Your task to perform on an android device: What's the weather today? Image 0: 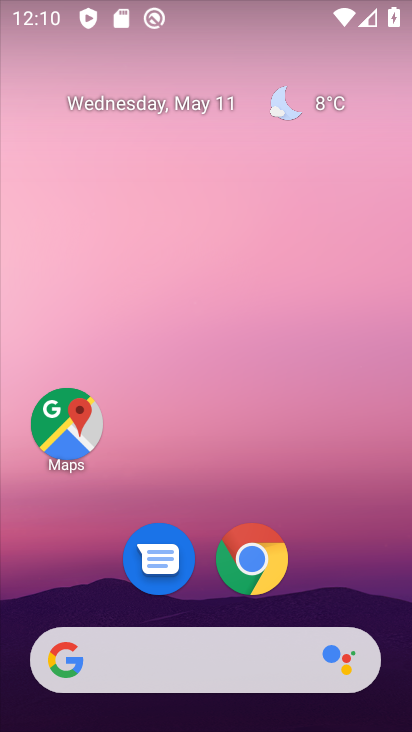
Step 0: drag from (302, 554) to (244, 65)
Your task to perform on an android device: What's the weather today? Image 1: 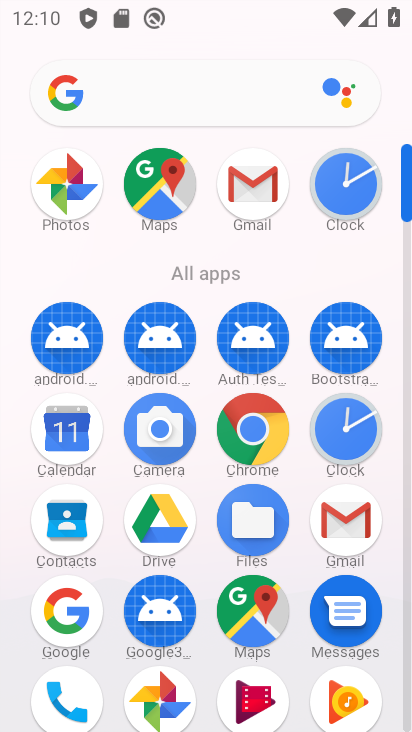
Step 1: drag from (16, 579) to (13, 201)
Your task to perform on an android device: What's the weather today? Image 2: 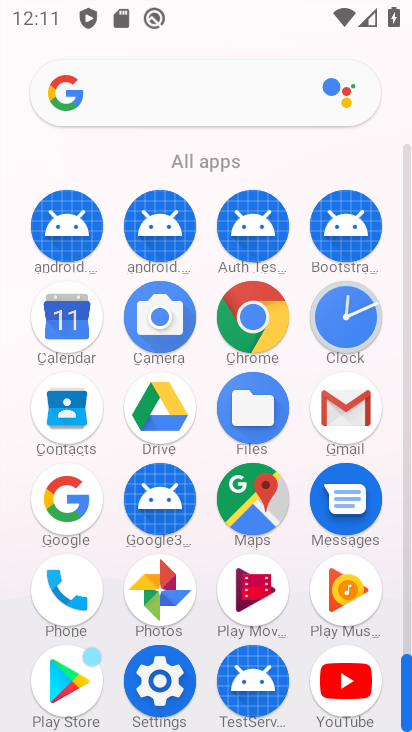
Step 2: drag from (15, 476) to (5, 248)
Your task to perform on an android device: What's the weather today? Image 3: 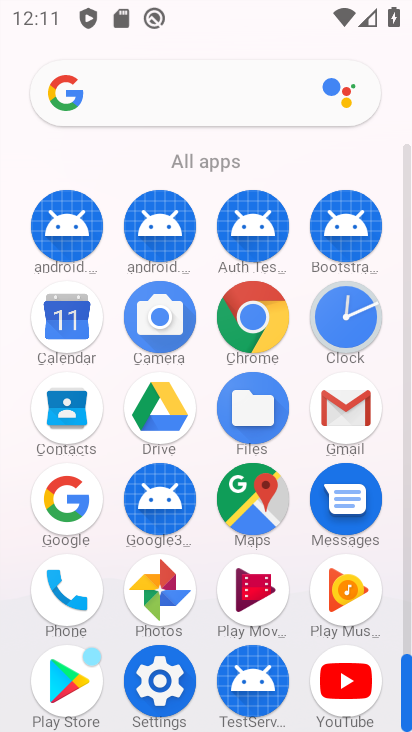
Step 3: click (244, 309)
Your task to perform on an android device: What's the weather today? Image 4: 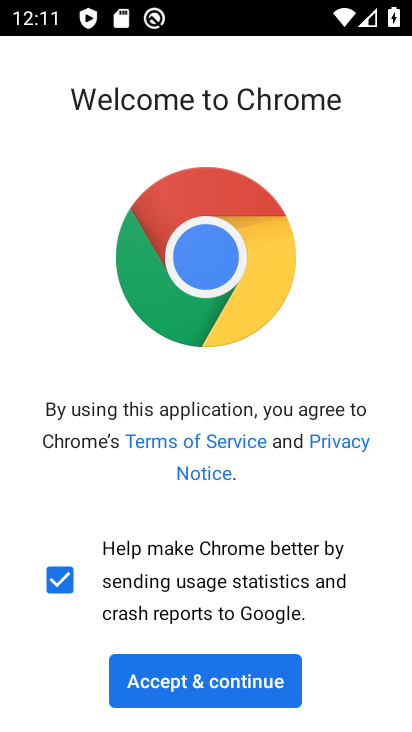
Step 4: click (184, 678)
Your task to perform on an android device: What's the weather today? Image 5: 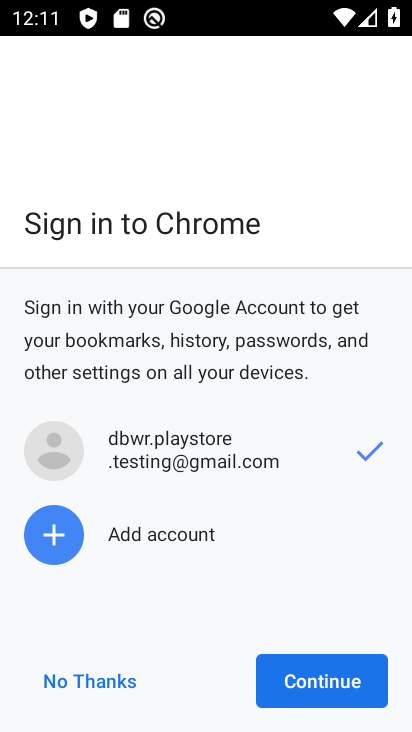
Step 5: click (294, 671)
Your task to perform on an android device: What's the weather today? Image 6: 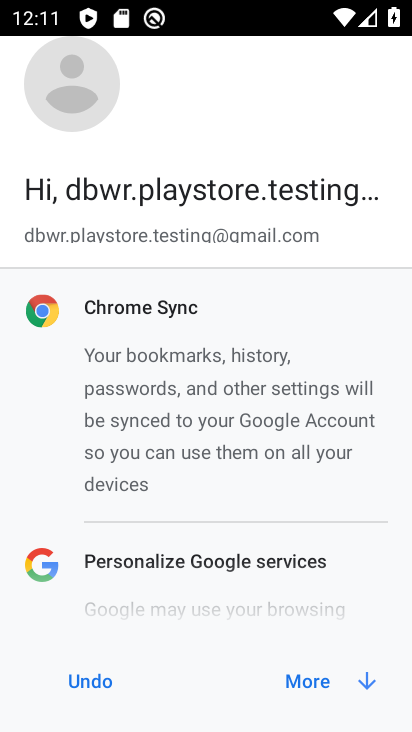
Step 6: click (304, 668)
Your task to perform on an android device: What's the weather today? Image 7: 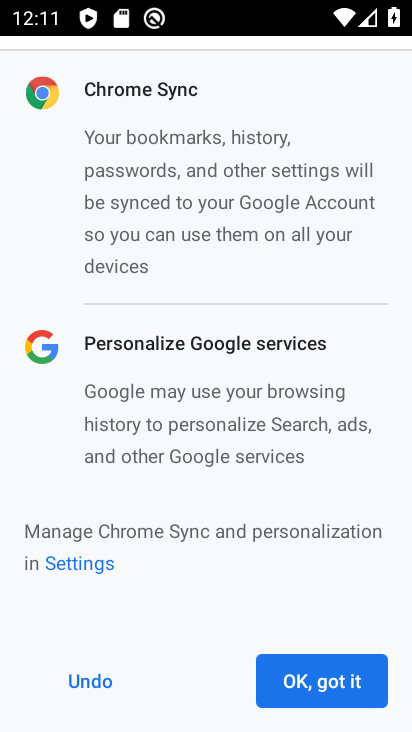
Step 7: click (330, 689)
Your task to perform on an android device: What's the weather today? Image 8: 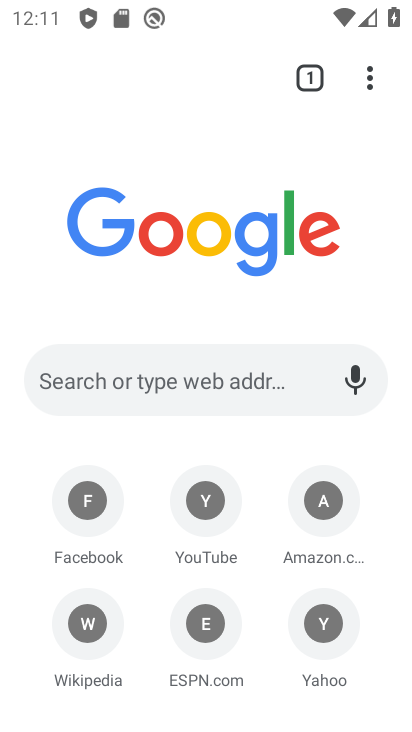
Step 8: click (184, 373)
Your task to perform on an android device: What's the weather today? Image 9: 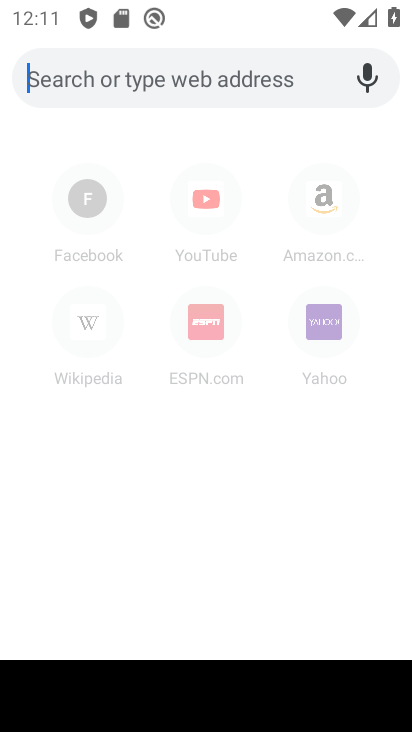
Step 9: type "What's the weather today?"
Your task to perform on an android device: What's the weather today? Image 10: 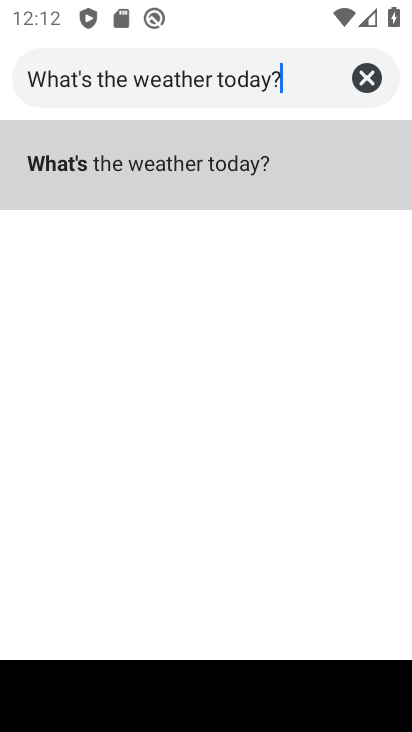
Step 10: type ""
Your task to perform on an android device: What's the weather today? Image 11: 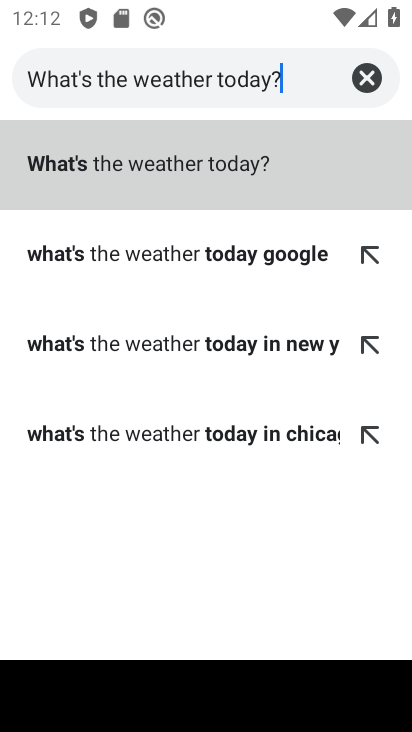
Step 11: click (206, 155)
Your task to perform on an android device: What's the weather today? Image 12: 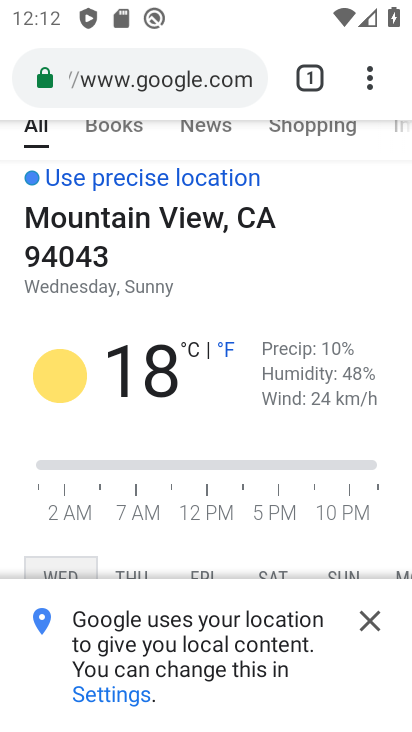
Step 12: task complete